Your task to perform on an android device: open chrome privacy settings Image 0: 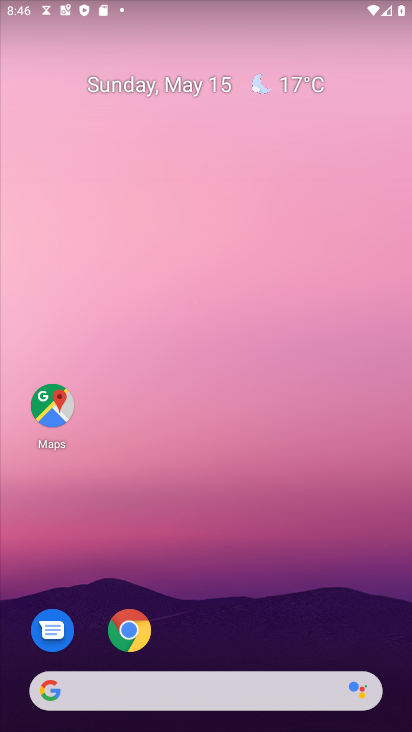
Step 0: drag from (350, 568) to (411, 105)
Your task to perform on an android device: open chrome privacy settings Image 1: 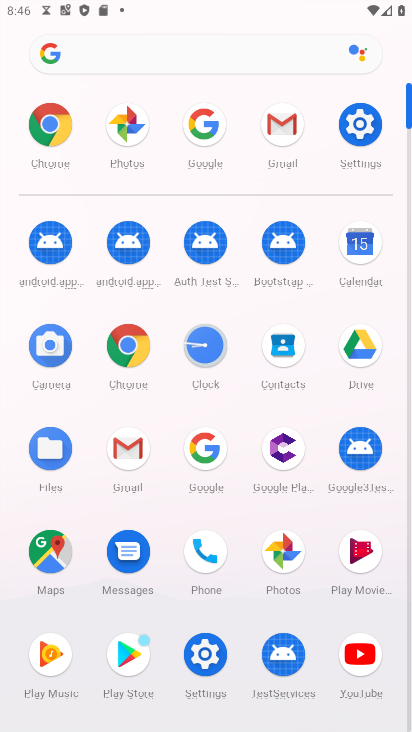
Step 1: click (44, 121)
Your task to perform on an android device: open chrome privacy settings Image 2: 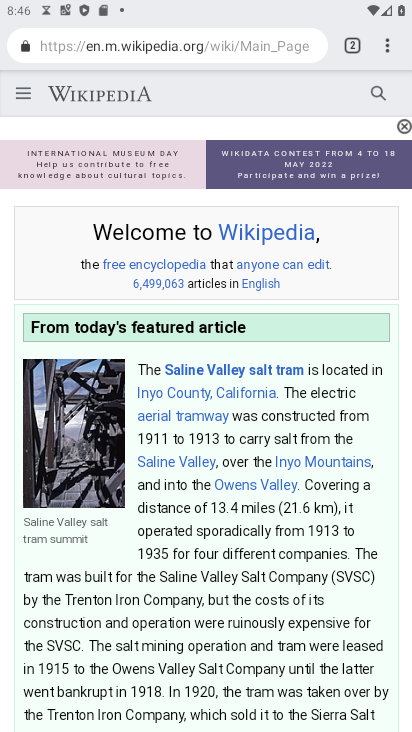
Step 2: drag from (379, 48) to (194, 508)
Your task to perform on an android device: open chrome privacy settings Image 3: 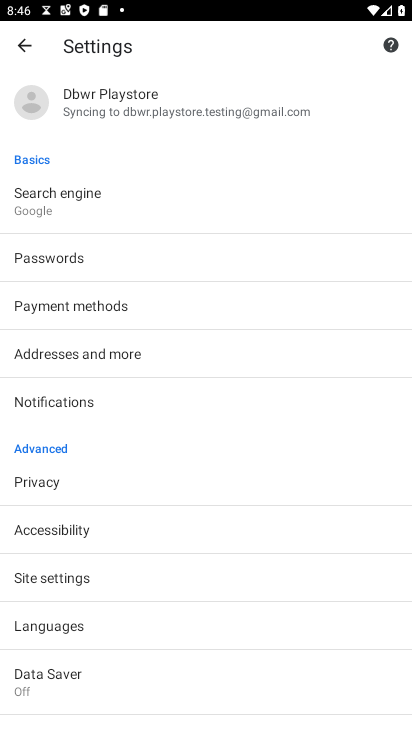
Step 3: click (116, 477)
Your task to perform on an android device: open chrome privacy settings Image 4: 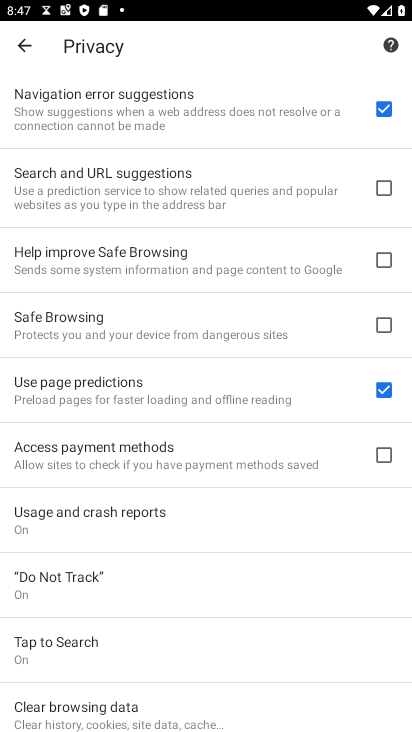
Step 4: task complete